Your task to perform on an android device: set the stopwatch Image 0: 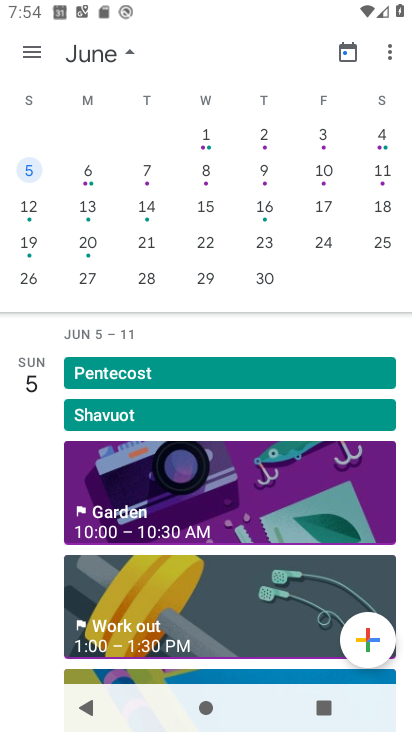
Step 0: press home button
Your task to perform on an android device: set the stopwatch Image 1: 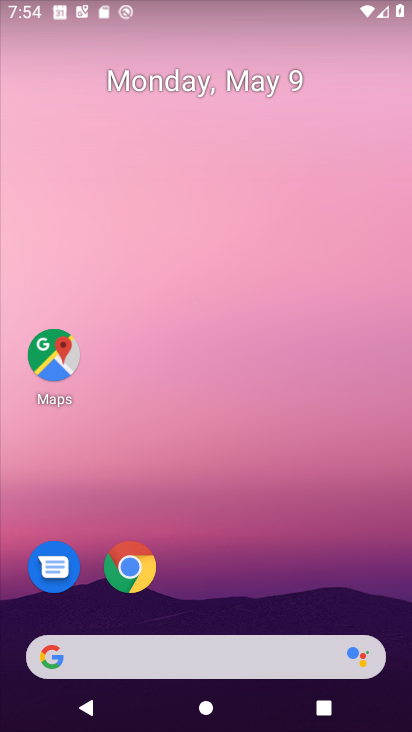
Step 1: drag from (270, 588) to (217, 21)
Your task to perform on an android device: set the stopwatch Image 2: 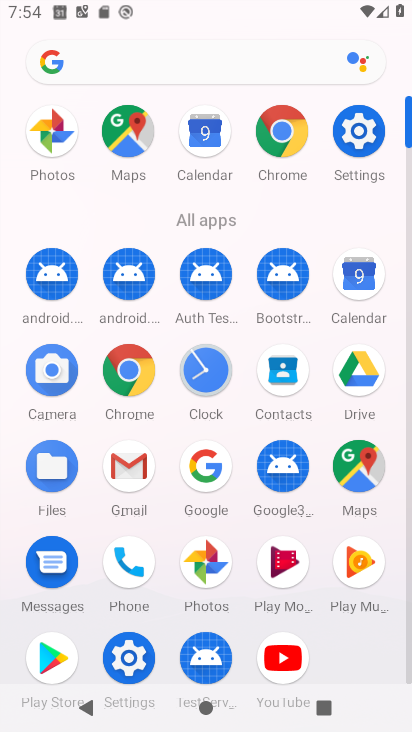
Step 2: click (219, 378)
Your task to perform on an android device: set the stopwatch Image 3: 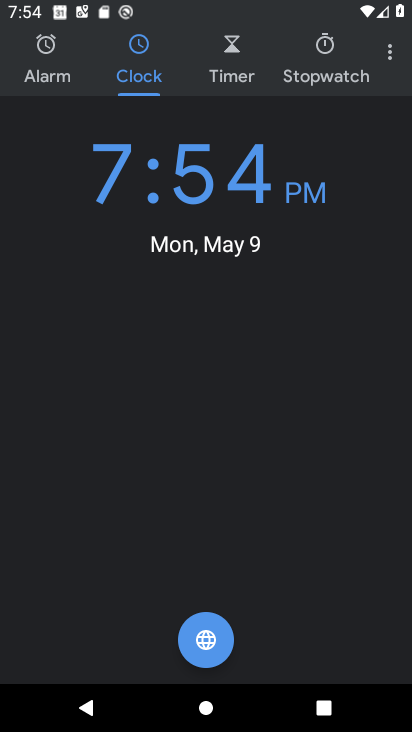
Step 3: click (316, 68)
Your task to perform on an android device: set the stopwatch Image 4: 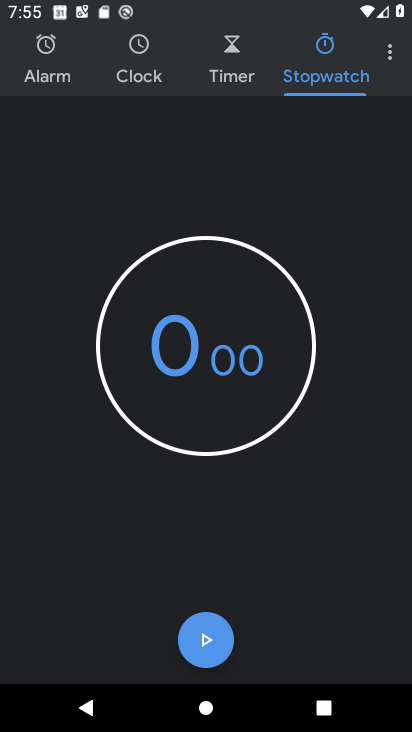
Step 4: click (200, 649)
Your task to perform on an android device: set the stopwatch Image 5: 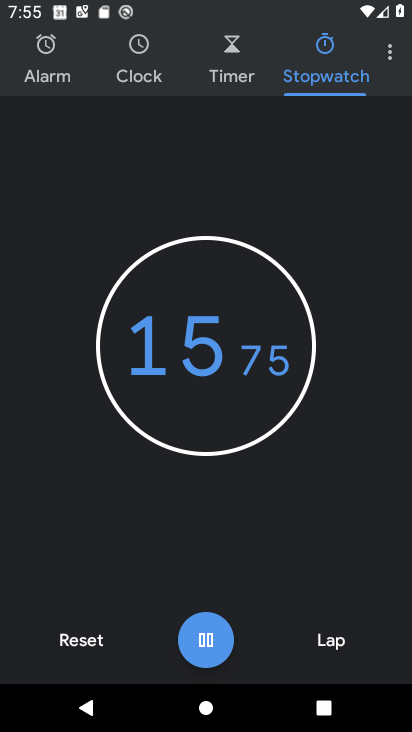
Step 5: task complete